Your task to perform on an android device: What's on my calendar today? Image 0: 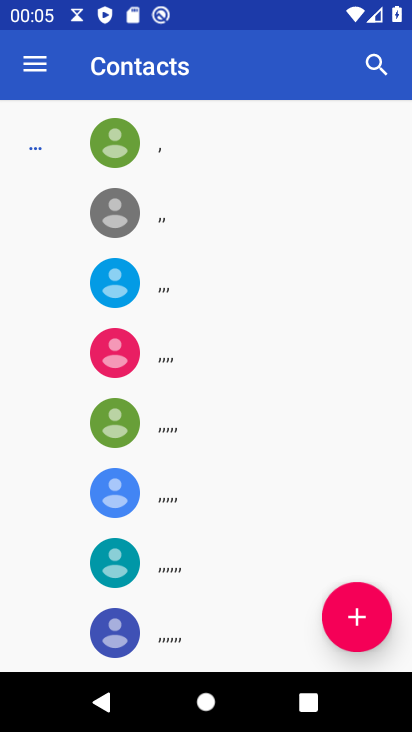
Step 0: press back button
Your task to perform on an android device: What's on my calendar today? Image 1: 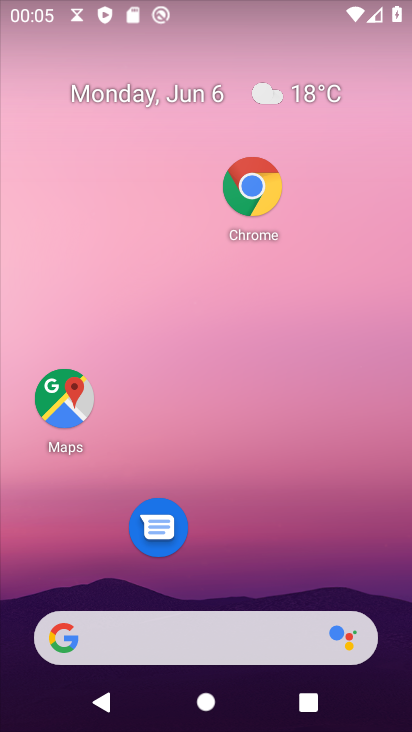
Step 1: drag from (225, 594) to (241, 78)
Your task to perform on an android device: What's on my calendar today? Image 2: 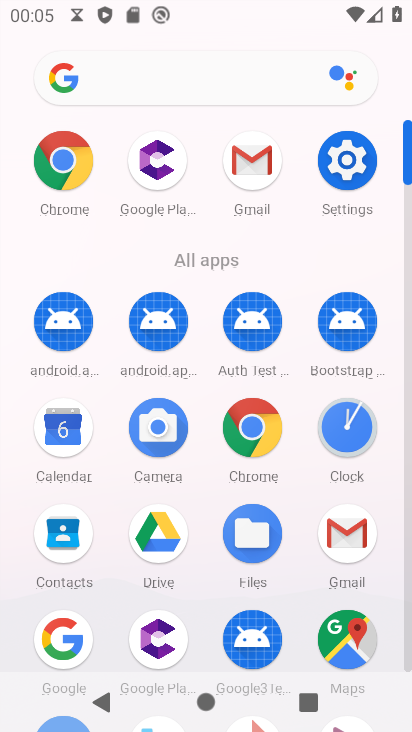
Step 2: press home button
Your task to perform on an android device: What's on my calendar today? Image 3: 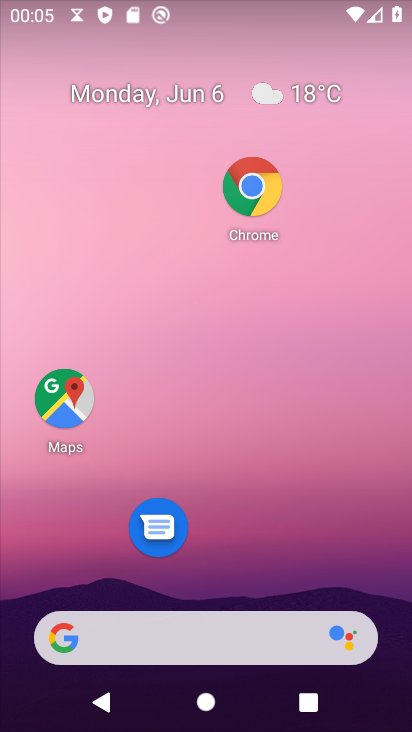
Step 3: drag from (207, 587) to (229, 175)
Your task to perform on an android device: What's on my calendar today? Image 4: 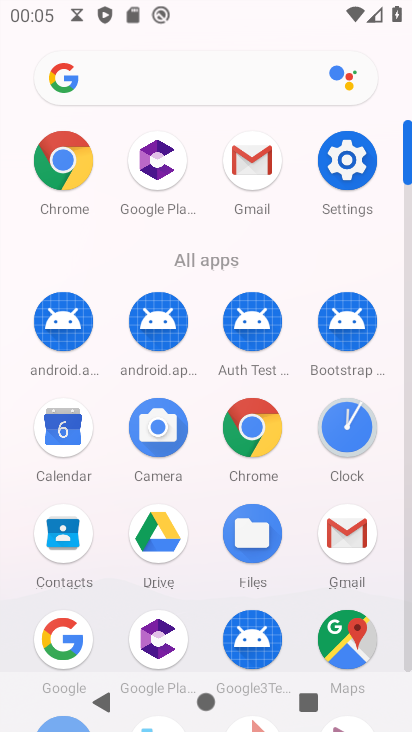
Step 4: drag from (272, 570) to (299, 207)
Your task to perform on an android device: What's on my calendar today? Image 5: 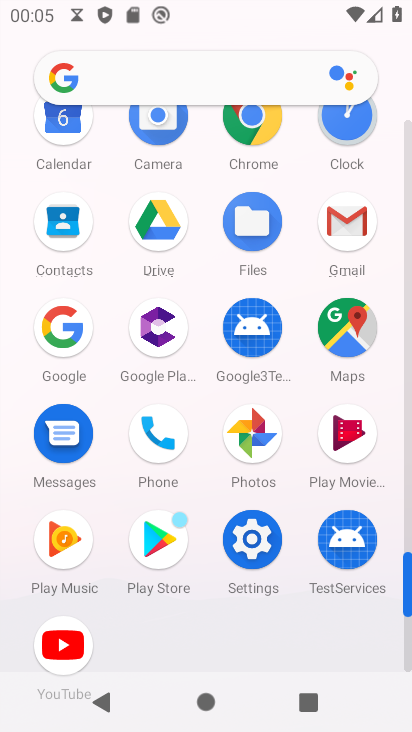
Step 5: drag from (285, 228) to (163, 731)
Your task to perform on an android device: What's on my calendar today? Image 6: 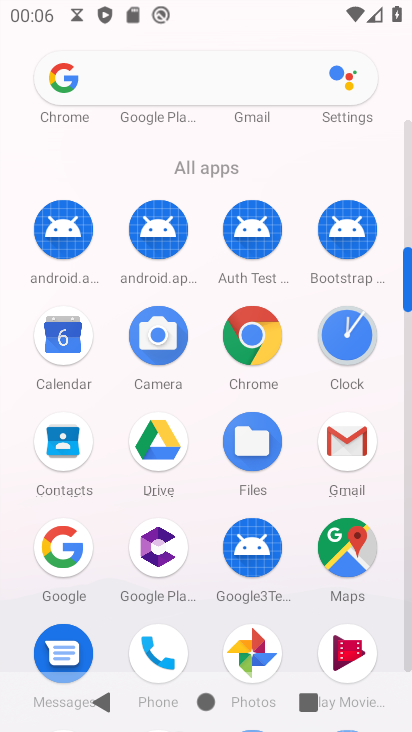
Step 6: drag from (202, 548) to (212, 361)
Your task to perform on an android device: What's on my calendar today? Image 7: 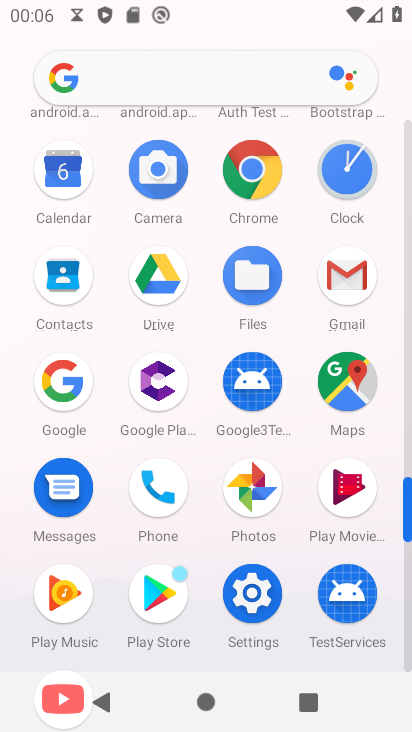
Step 7: drag from (214, 321) to (212, 503)
Your task to perform on an android device: What's on my calendar today? Image 8: 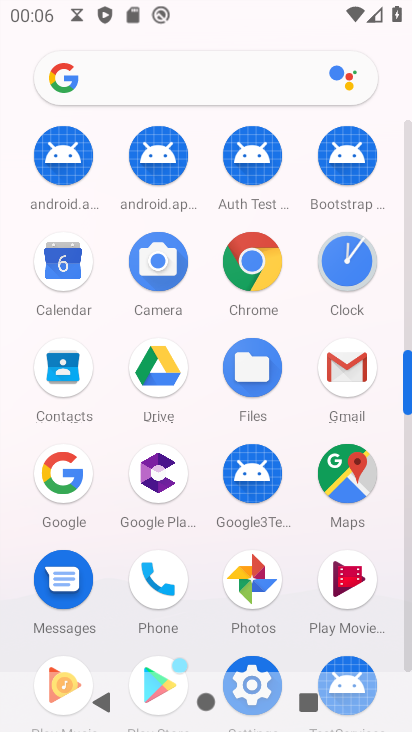
Step 8: drag from (204, 335) to (183, 589)
Your task to perform on an android device: What's on my calendar today? Image 9: 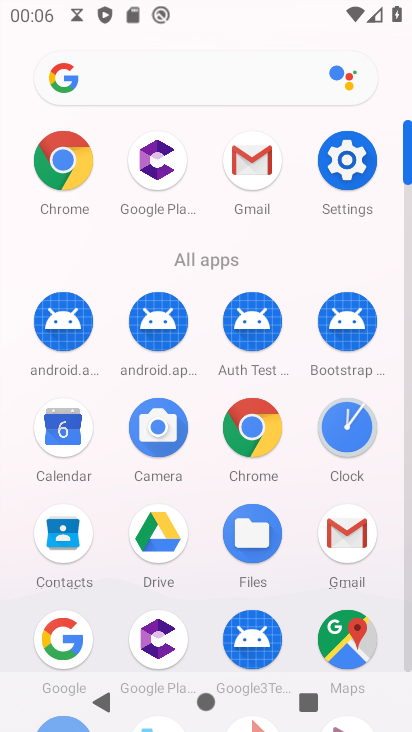
Step 9: click (45, 449)
Your task to perform on an android device: What's on my calendar today? Image 10: 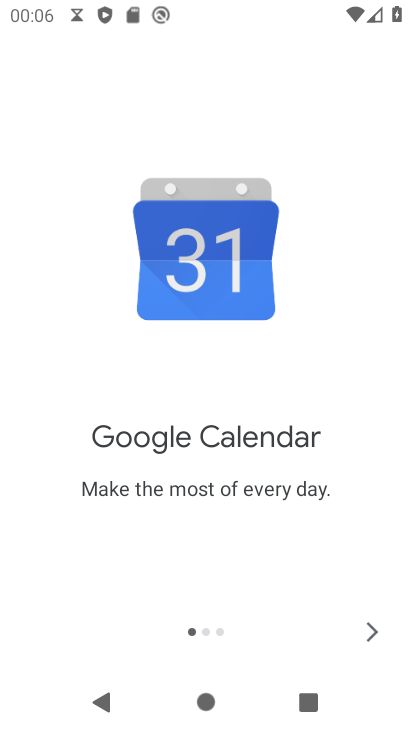
Step 10: click (368, 626)
Your task to perform on an android device: What's on my calendar today? Image 11: 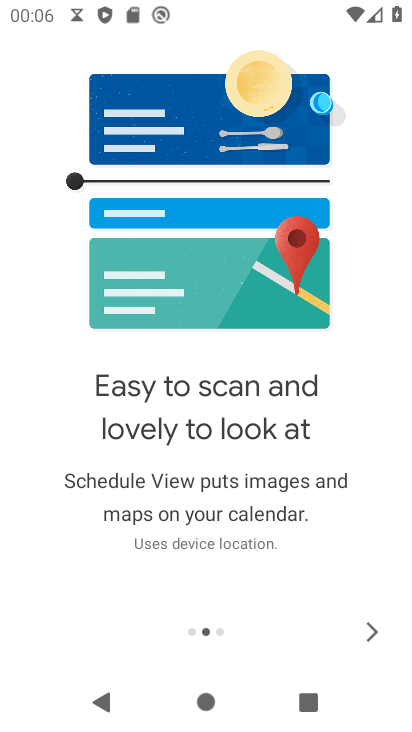
Step 11: click (360, 644)
Your task to perform on an android device: What's on my calendar today? Image 12: 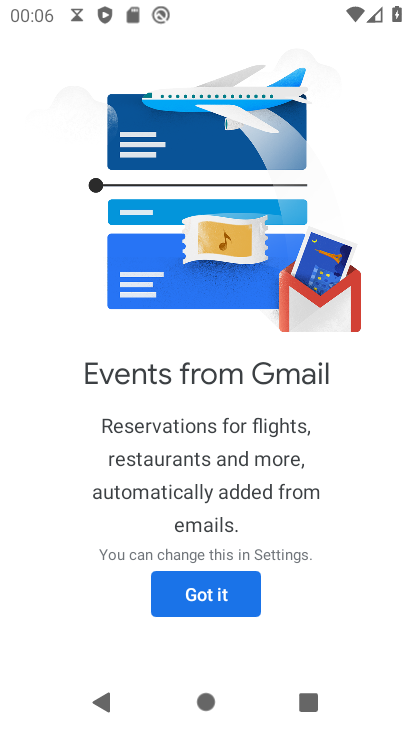
Step 12: click (361, 643)
Your task to perform on an android device: What's on my calendar today? Image 13: 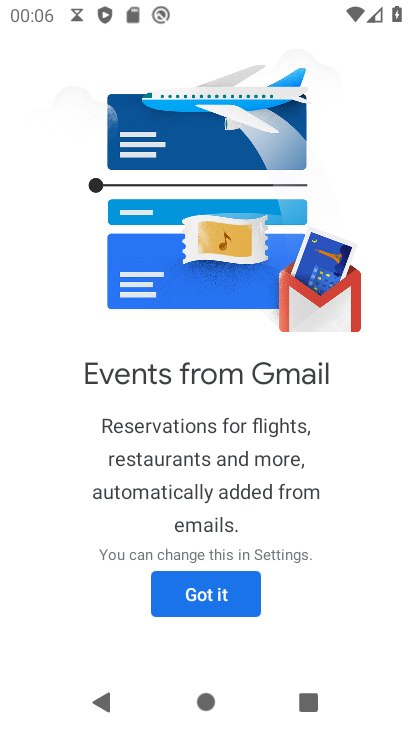
Step 13: click (195, 595)
Your task to perform on an android device: What's on my calendar today? Image 14: 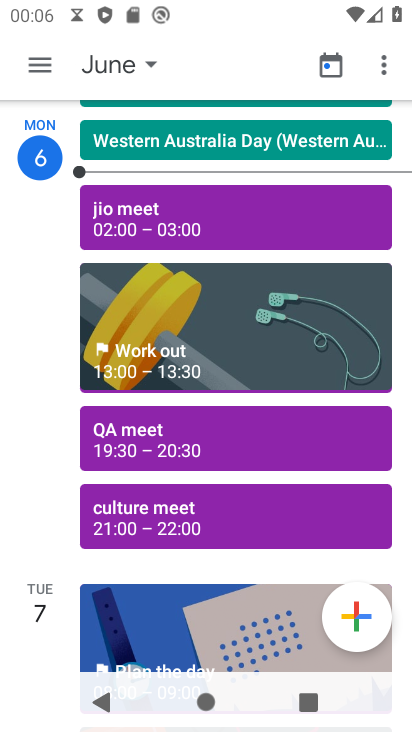
Step 14: task complete